Your task to perform on an android device: What's on my calendar today? Image 0: 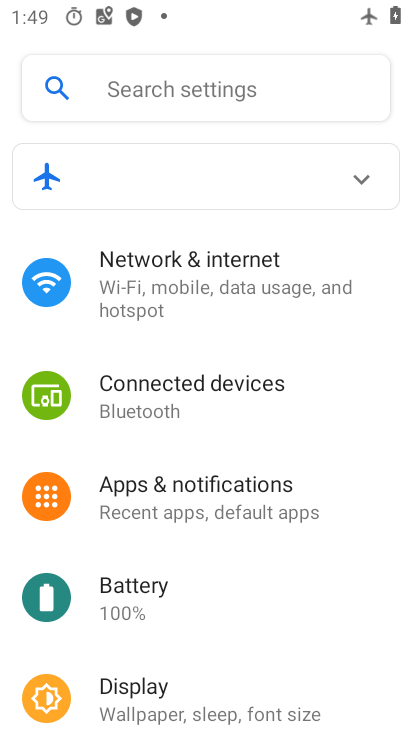
Step 0: press home button
Your task to perform on an android device: What's on my calendar today? Image 1: 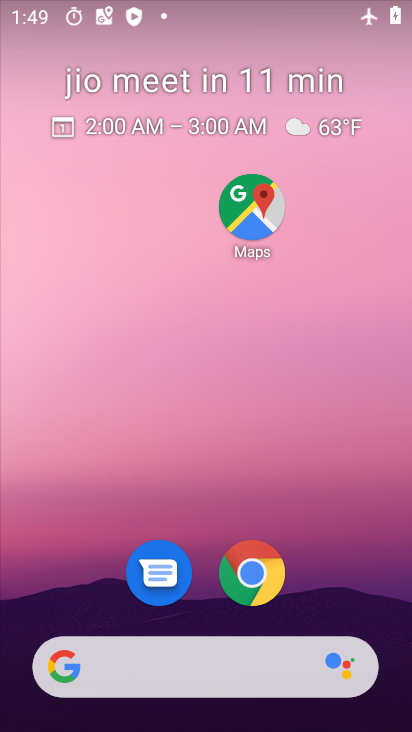
Step 1: drag from (32, 478) to (143, 147)
Your task to perform on an android device: What's on my calendar today? Image 2: 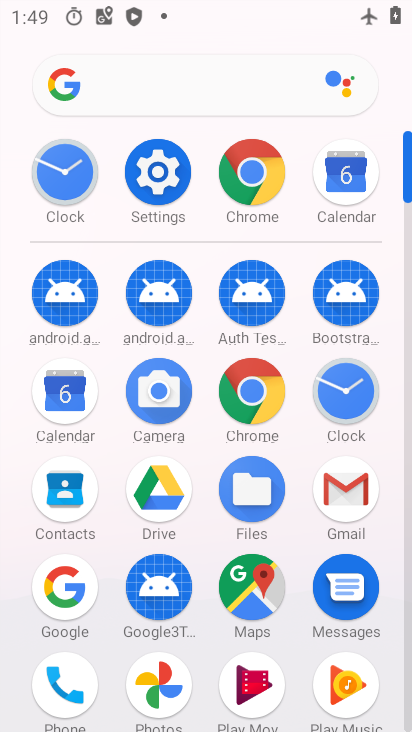
Step 2: click (87, 400)
Your task to perform on an android device: What's on my calendar today? Image 3: 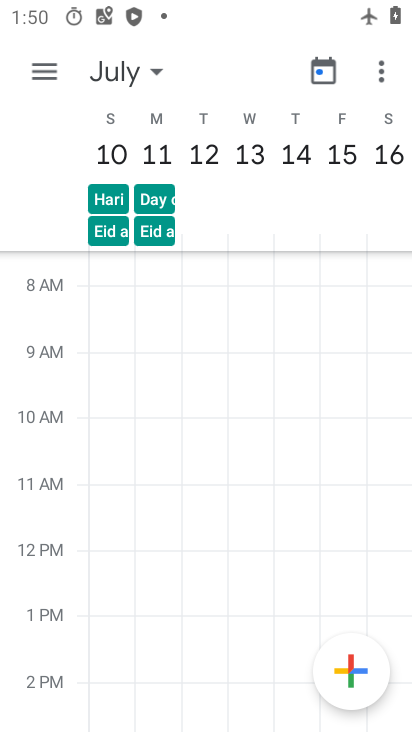
Step 3: click (142, 84)
Your task to perform on an android device: What's on my calendar today? Image 4: 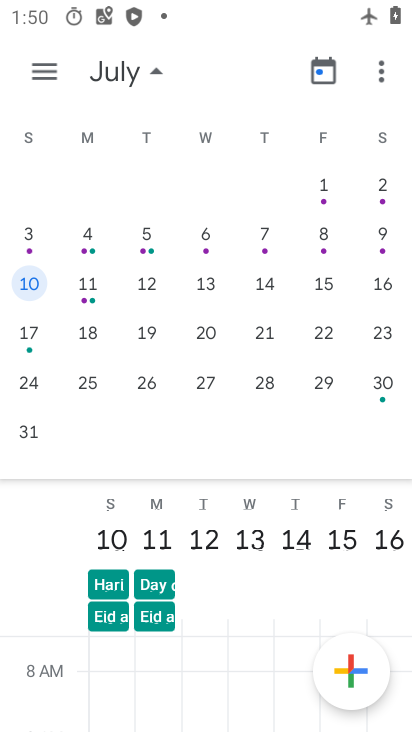
Step 4: drag from (37, 238) to (348, 266)
Your task to perform on an android device: What's on my calendar today? Image 5: 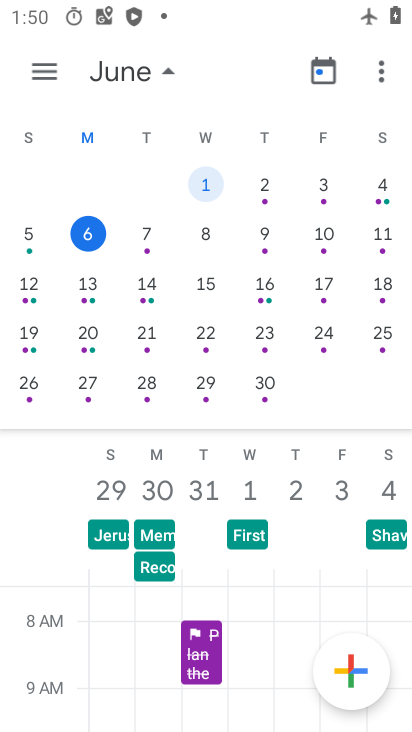
Step 5: click (95, 239)
Your task to perform on an android device: What's on my calendar today? Image 6: 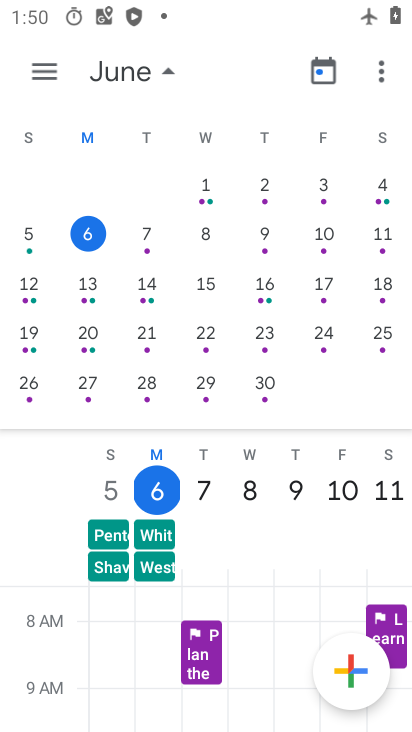
Step 6: click (95, 239)
Your task to perform on an android device: What's on my calendar today? Image 7: 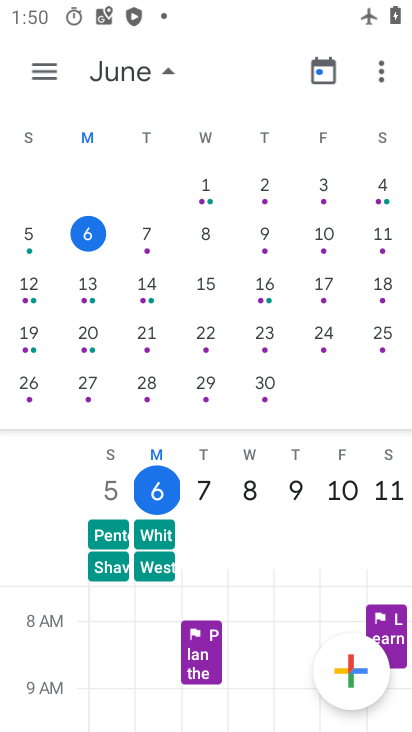
Step 7: click (95, 239)
Your task to perform on an android device: What's on my calendar today? Image 8: 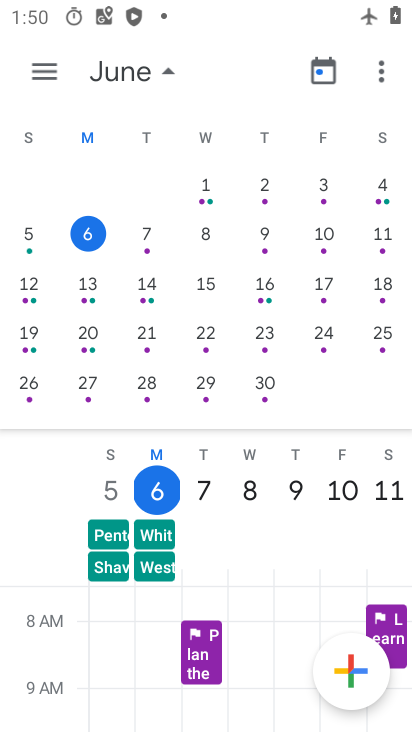
Step 8: click (151, 80)
Your task to perform on an android device: What's on my calendar today? Image 9: 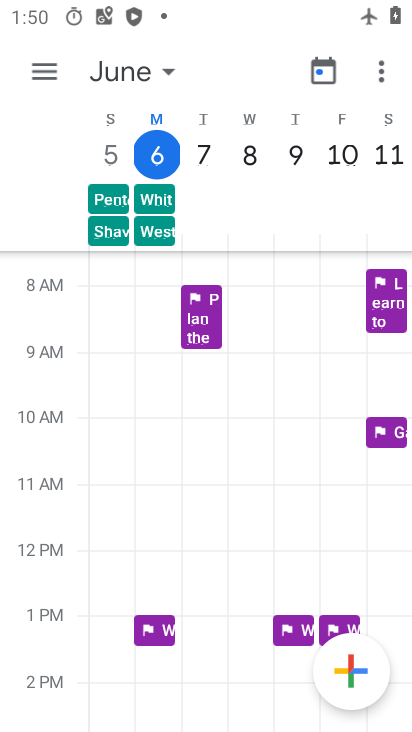
Step 9: click (158, 149)
Your task to perform on an android device: What's on my calendar today? Image 10: 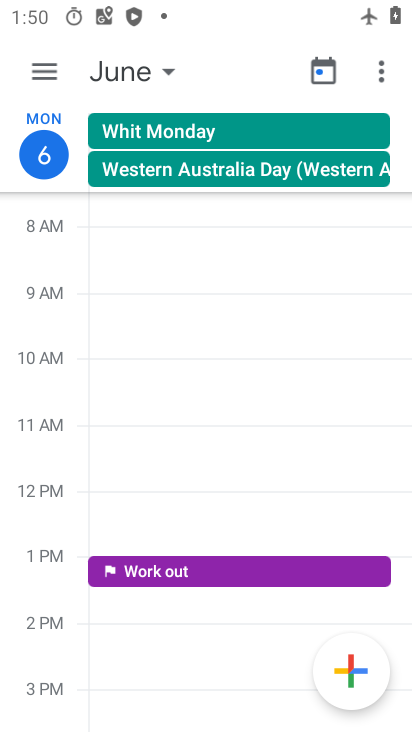
Step 10: task complete